Your task to perform on an android device: turn off location Image 0: 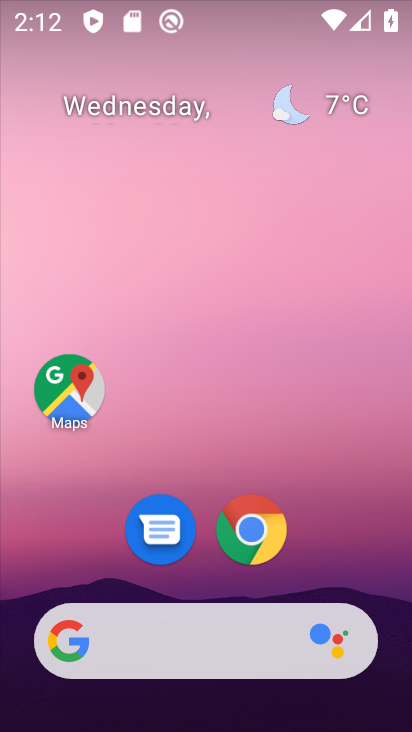
Step 0: drag from (339, 569) to (267, 91)
Your task to perform on an android device: turn off location Image 1: 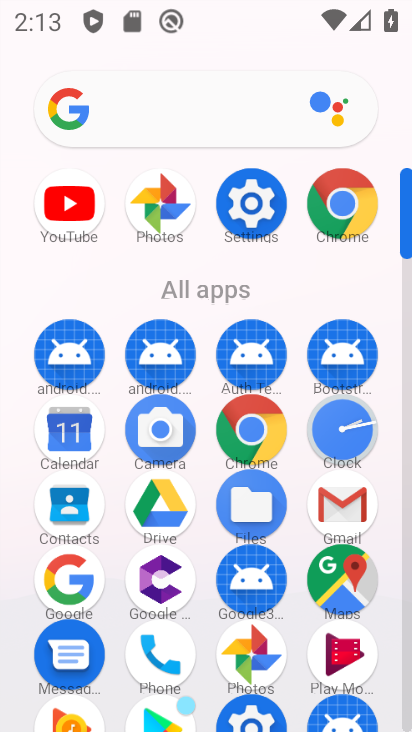
Step 1: click (257, 206)
Your task to perform on an android device: turn off location Image 2: 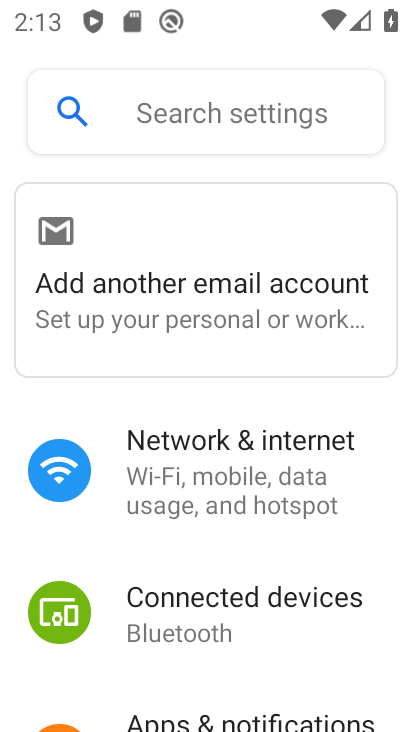
Step 2: drag from (274, 621) to (226, 227)
Your task to perform on an android device: turn off location Image 3: 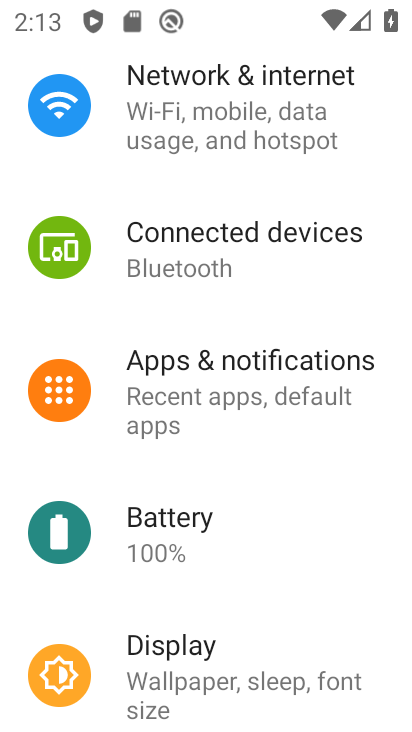
Step 3: drag from (231, 599) to (250, 189)
Your task to perform on an android device: turn off location Image 4: 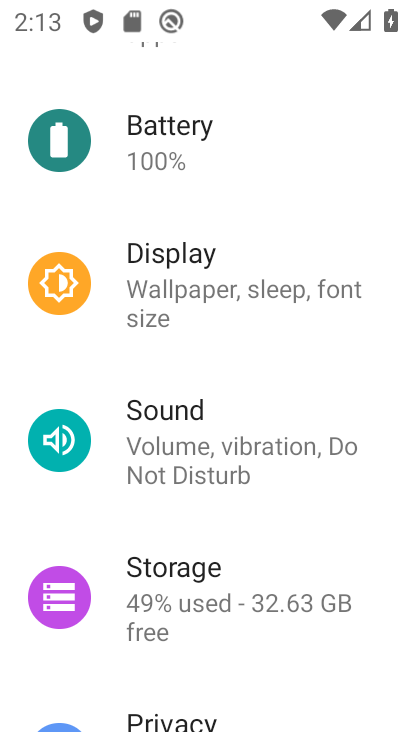
Step 4: drag from (228, 536) to (223, 176)
Your task to perform on an android device: turn off location Image 5: 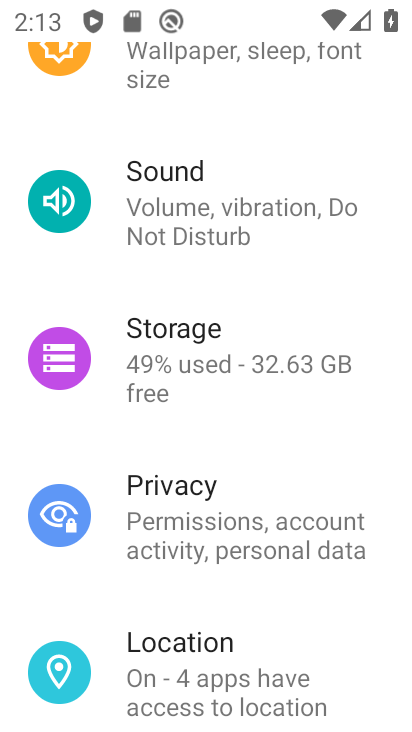
Step 5: click (212, 632)
Your task to perform on an android device: turn off location Image 6: 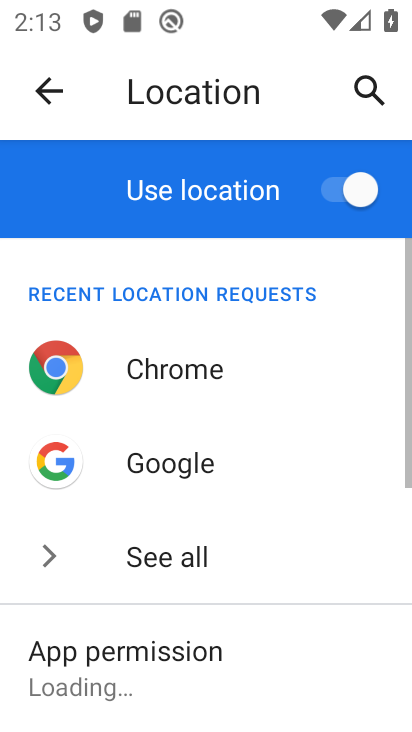
Step 6: drag from (212, 640) to (199, 284)
Your task to perform on an android device: turn off location Image 7: 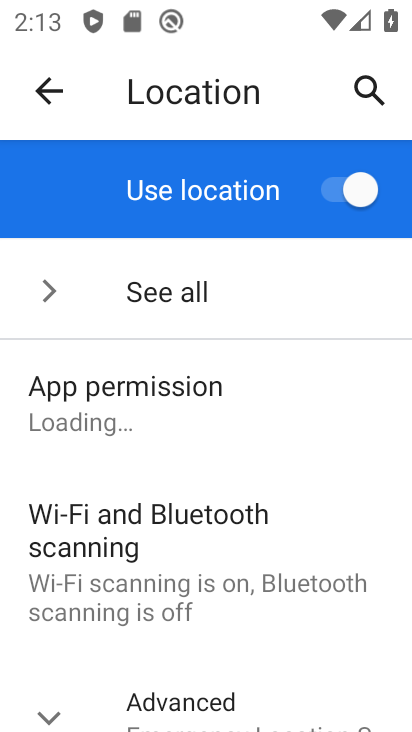
Step 7: drag from (199, 284) to (263, 689)
Your task to perform on an android device: turn off location Image 8: 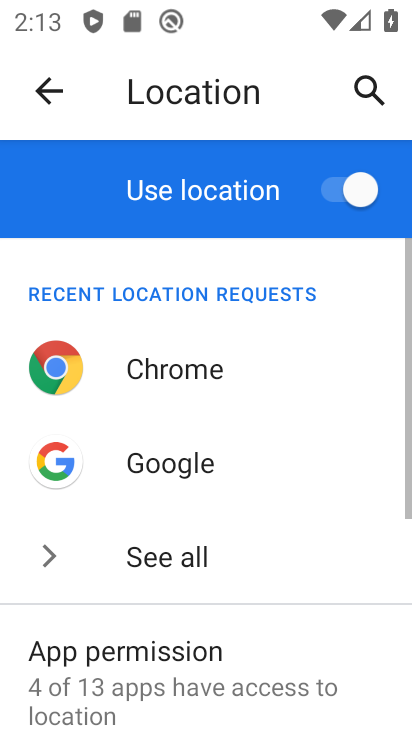
Step 8: click (337, 181)
Your task to perform on an android device: turn off location Image 9: 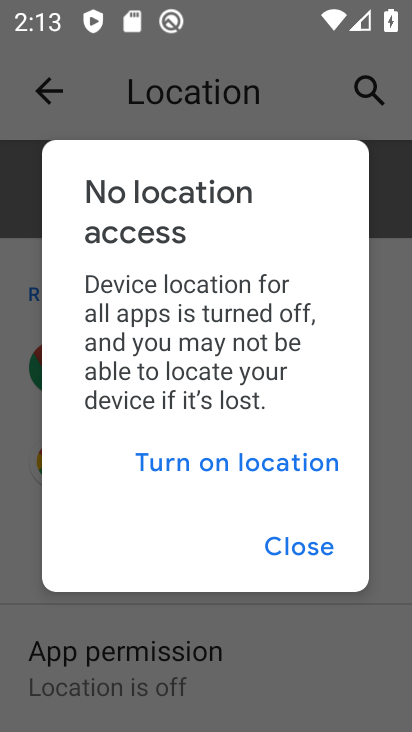
Step 9: task complete